Your task to perform on an android device: turn off wifi Image 0: 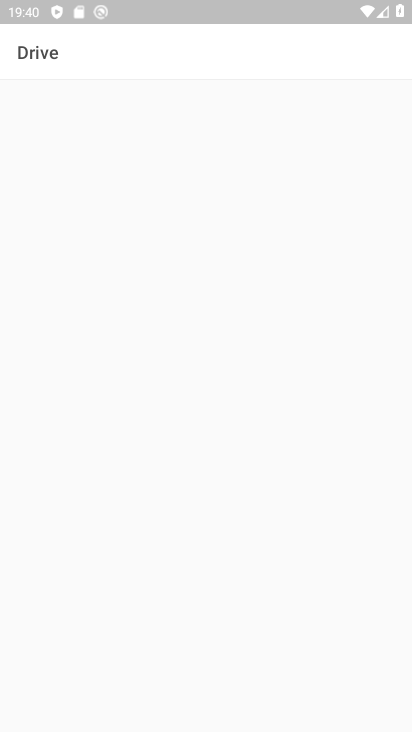
Step 0: press home button
Your task to perform on an android device: turn off wifi Image 1: 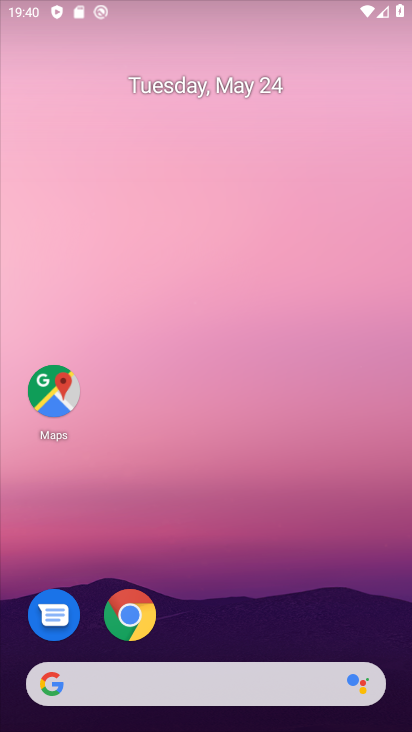
Step 1: drag from (232, 533) to (229, 294)
Your task to perform on an android device: turn off wifi Image 2: 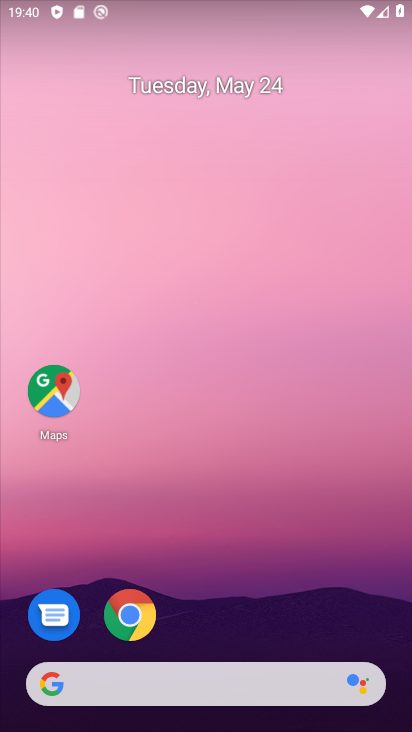
Step 2: drag from (224, 568) to (269, 262)
Your task to perform on an android device: turn off wifi Image 3: 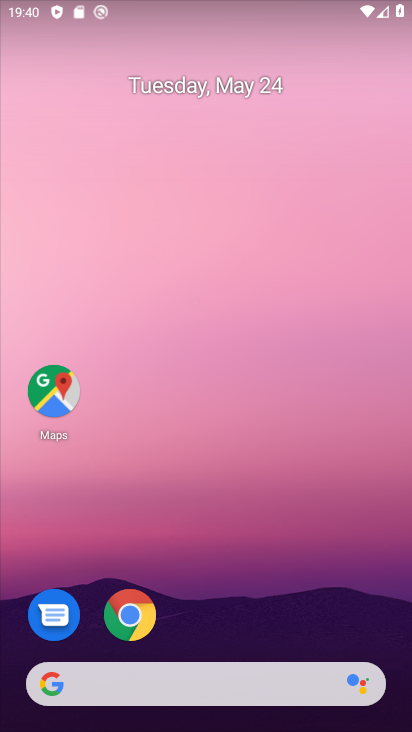
Step 3: drag from (202, 622) to (252, 335)
Your task to perform on an android device: turn off wifi Image 4: 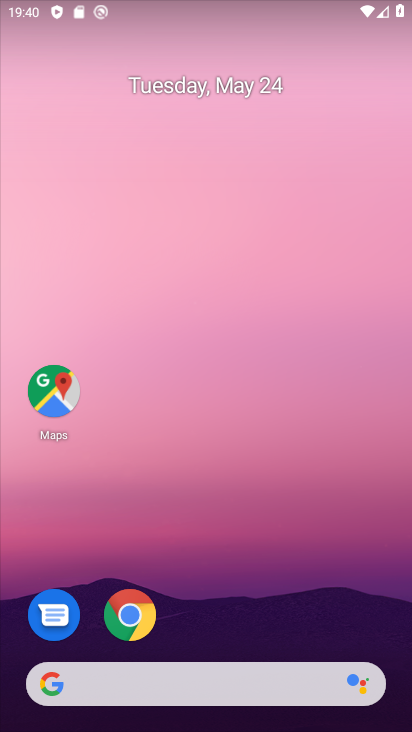
Step 4: drag from (180, 608) to (227, 281)
Your task to perform on an android device: turn off wifi Image 5: 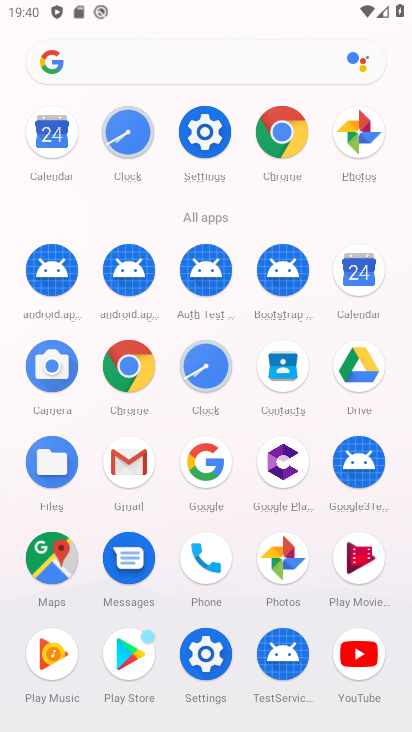
Step 5: click (203, 130)
Your task to perform on an android device: turn off wifi Image 6: 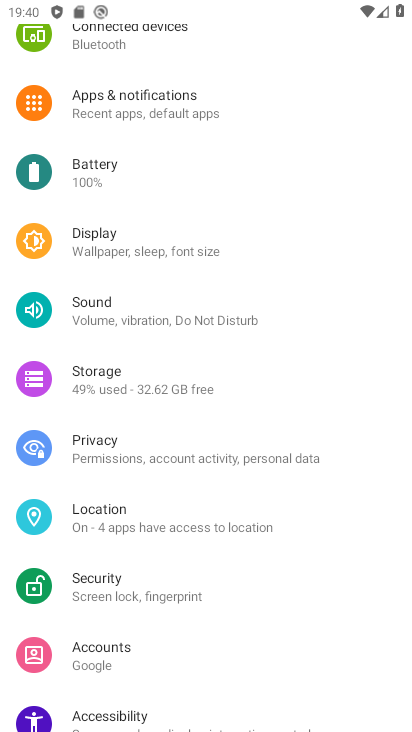
Step 6: drag from (250, 136) to (239, 645)
Your task to perform on an android device: turn off wifi Image 7: 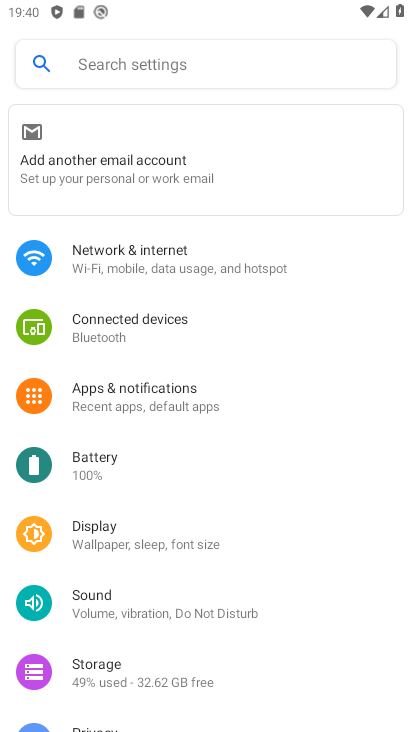
Step 7: click (201, 268)
Your task to perform on an android device: turn off wifi Image 8: 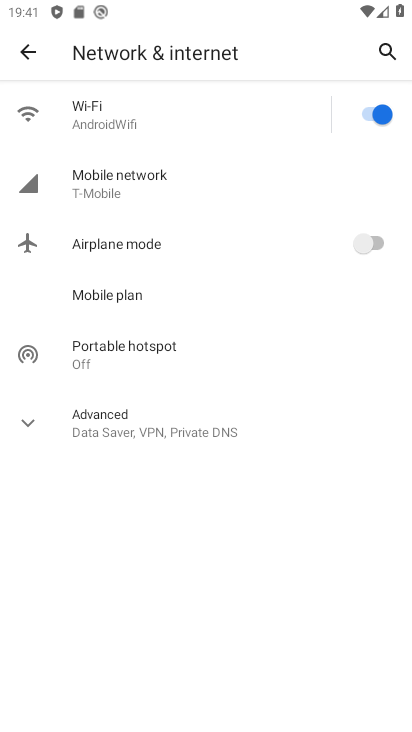
Step 8: click (376, 111)
Your task to perform on an android device: turn off wifi Image 9: 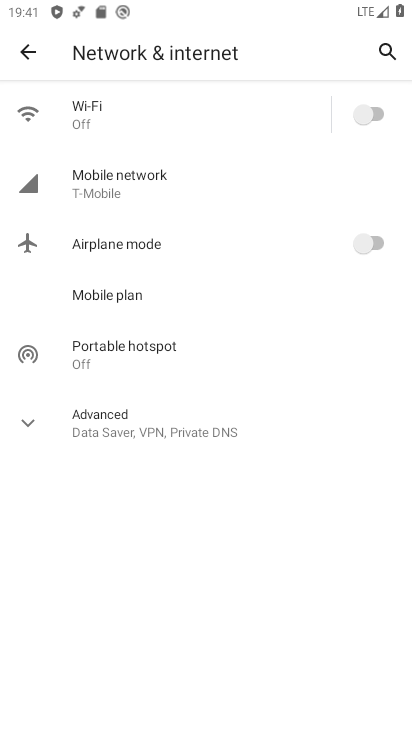
Step 9: task complete